Your task to perform on an android device: Open settings on Google Maps Image 0: 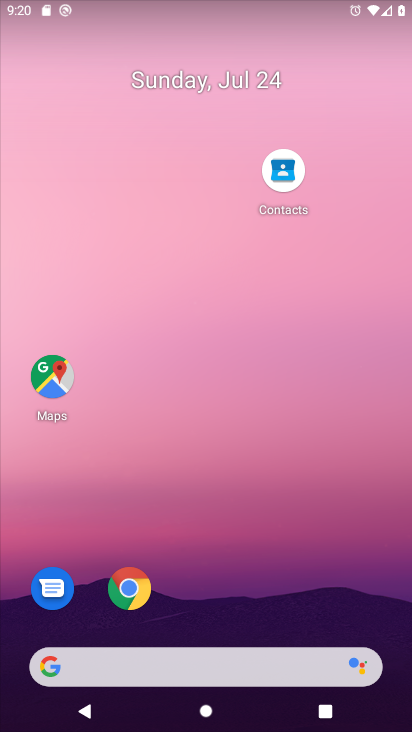
Step 0: click (52, 370)
Your task to perform on an android device: Open settings on Google Maps Image 1: 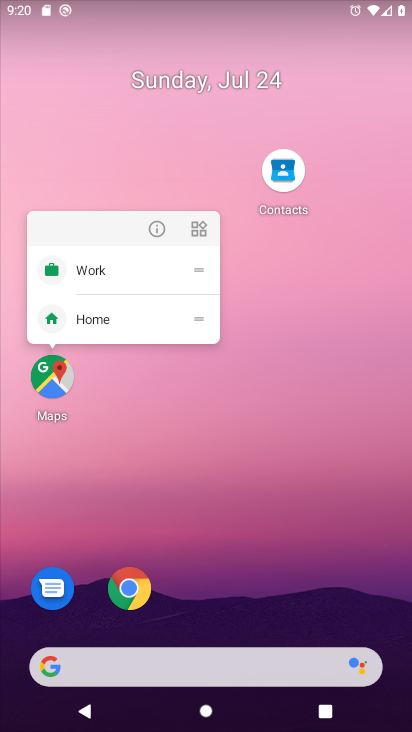
Step 1: click (221, 453)
Your task to perform on an android device: Open settings on Google Maps Image 2: 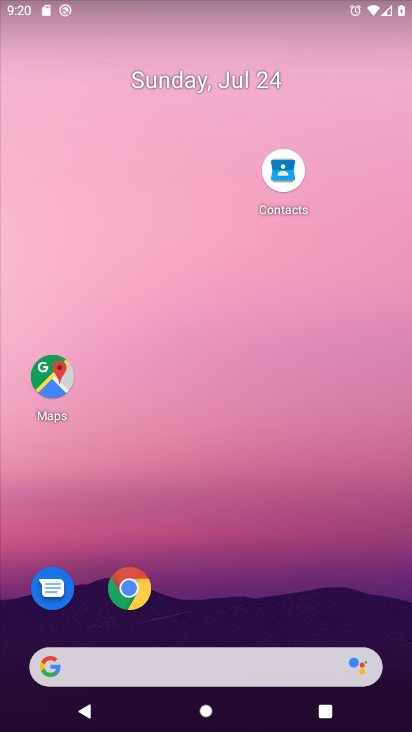
Step 2: click (51, 373)
Your task to perform on an android device: Open settings on Google Maps Image 3: 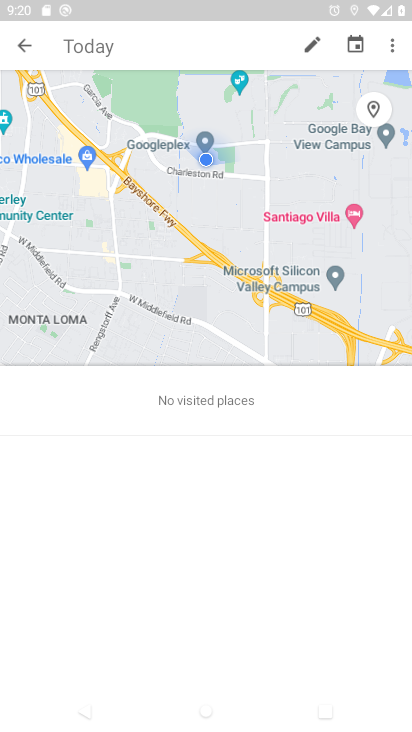
Step 3: click (24, 47)
Your task to perform on an android device: Open settings on Google Maps Image 4: 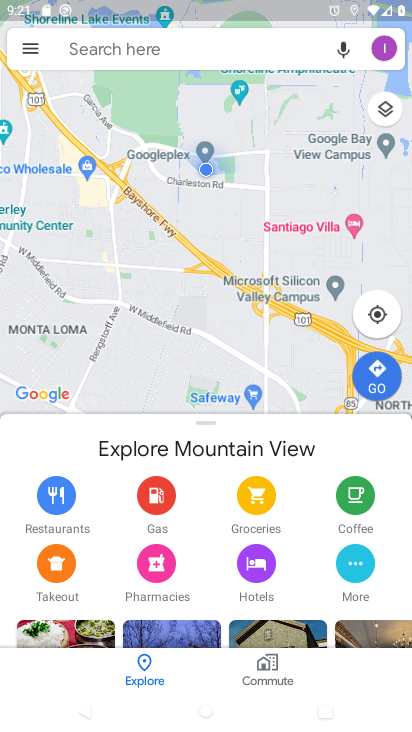
Step 4: click (28, 46)
Your task to perform on an android device: Open settings on Google Maps Image 5: 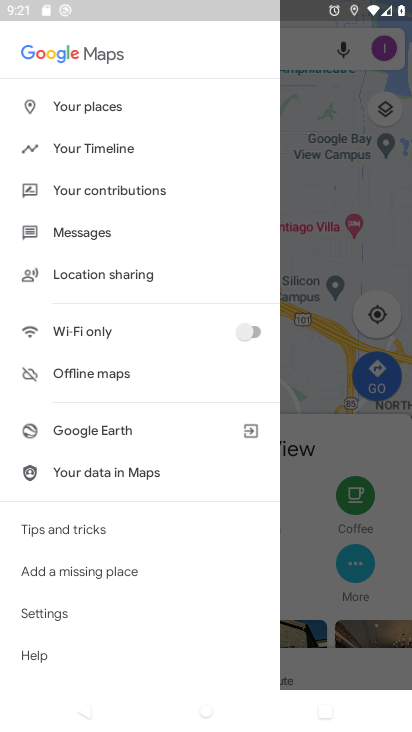
Step 5: click (82, 612)
Your task to perform on an android device: Open settings on Google Maps Image 6: 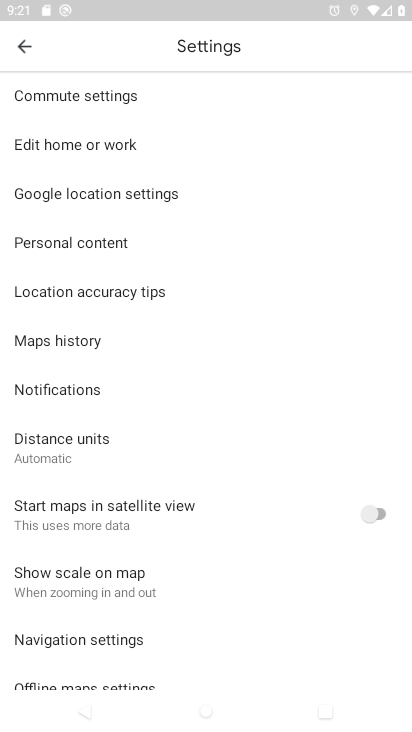
Step 6: task complete